Your task to perform on an android device: set the stopwatch Image 0: 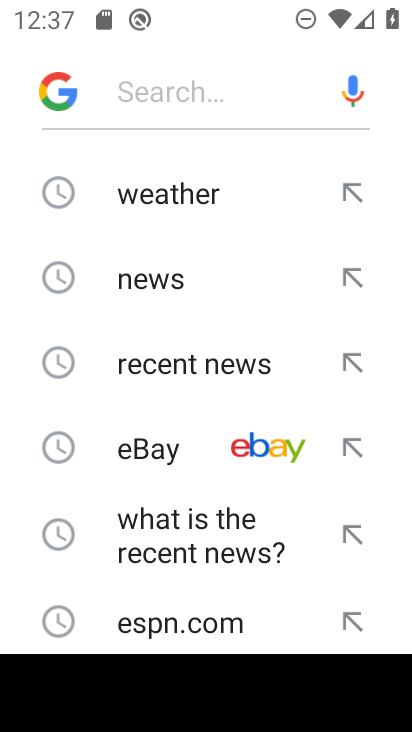
Step 0: press home button
Your task to perform on an android device: set the stopwatch Image 1: 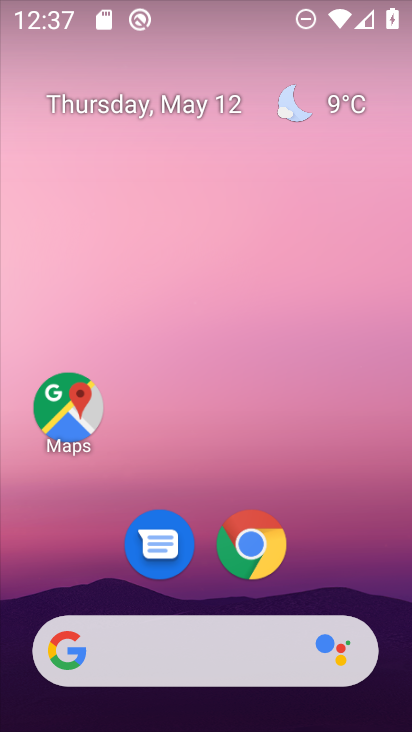
Step 1: drag from (211, 726) to (253, 82)
Your task to perform on an android device: set the stopwatch Image 2: 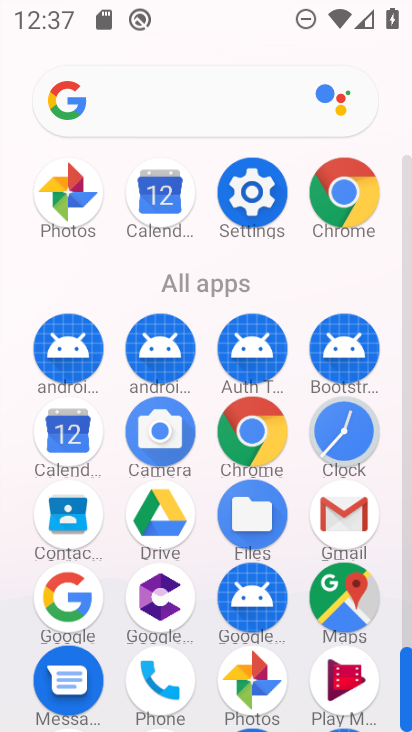
Step 2: click (344, 431)
Your task to perform on an android device: set the stopwatch Image 3: 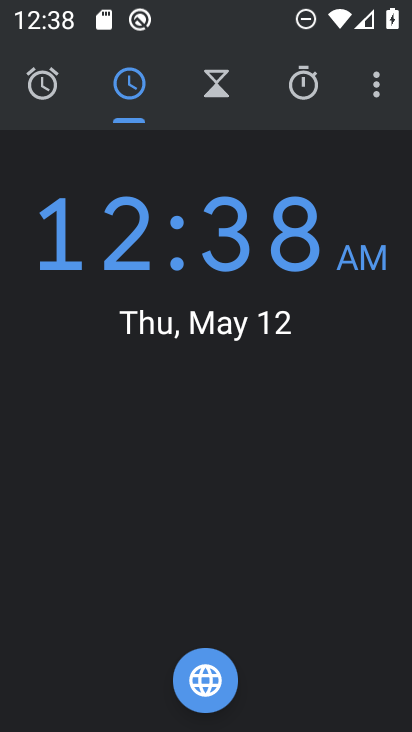
Step 3: click (297, 87)
Your task to perform on an android device: set the stopwatch Image 4: 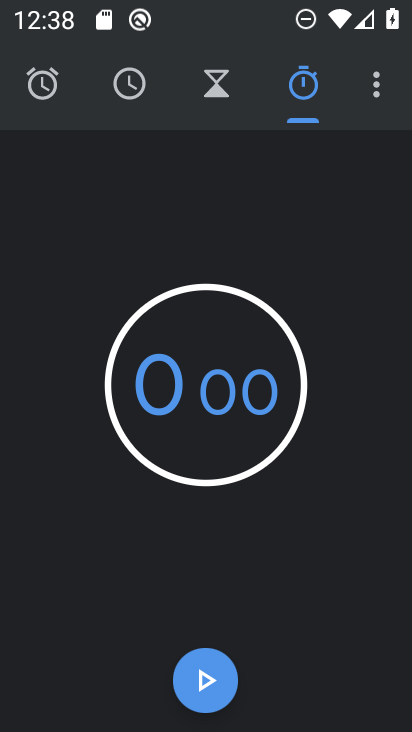
Step 4: click (206, 391)
Your task to perform on an android device: set the stopwatch Image 5: 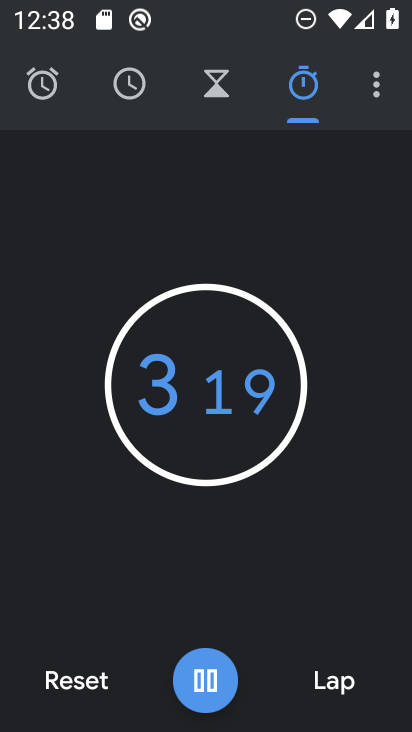
Step 5: type "876"
Your task to perform on an android device: set the stopwatch Image 6: 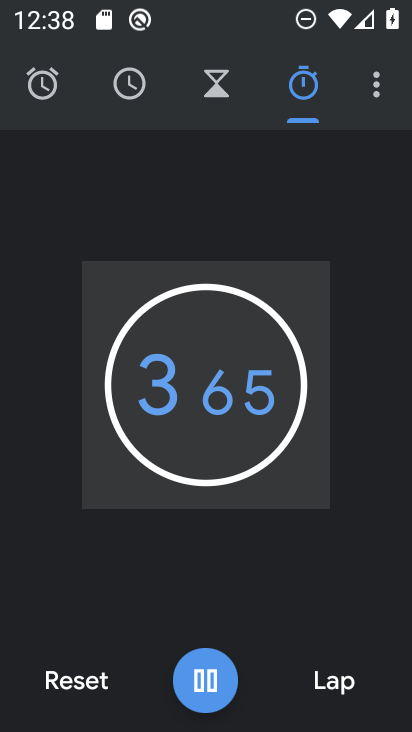
Step 6: type ""
Your task to perform on an android device: set the stopwatch Image 7: 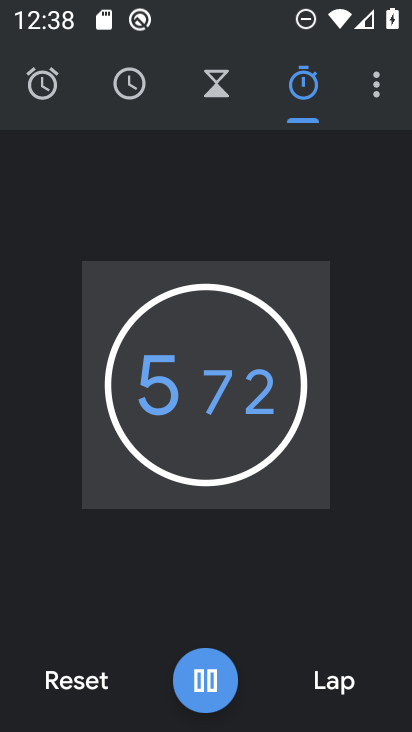
Step 7: task complete